Your task to perform on an android device: turn off data saver in the chrome app Image 0: 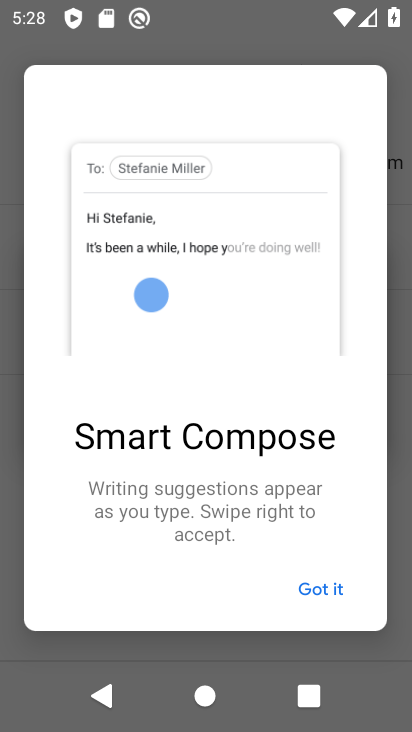
Step 0: press home button
Your task to perform on an android device: turn off data saver in the chrome app Image 1: 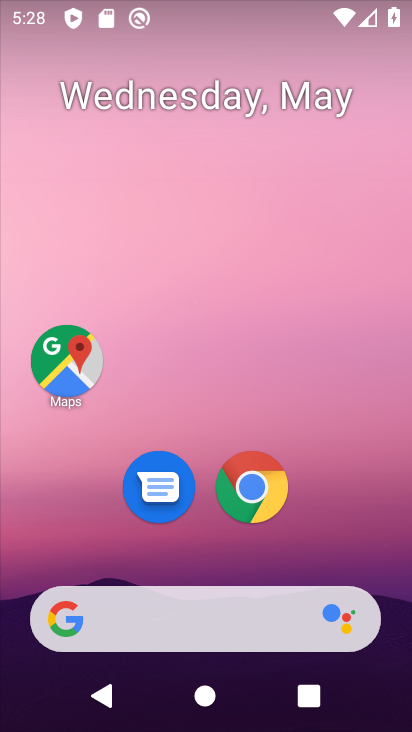
Step 1: drag from (164, 567) to (179, 119)
Your task to perform on an android device: turn off data saver in the chrome app Image 2: 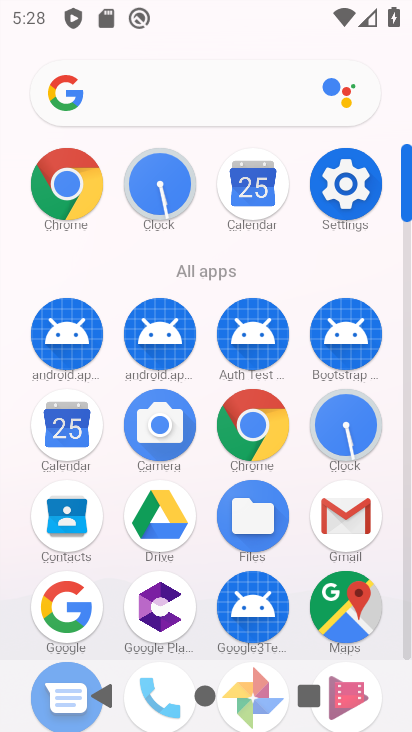
Step 2: click (250, 449)
Your task to perform on an android device: turn off data saver in the chrome app Image 3: 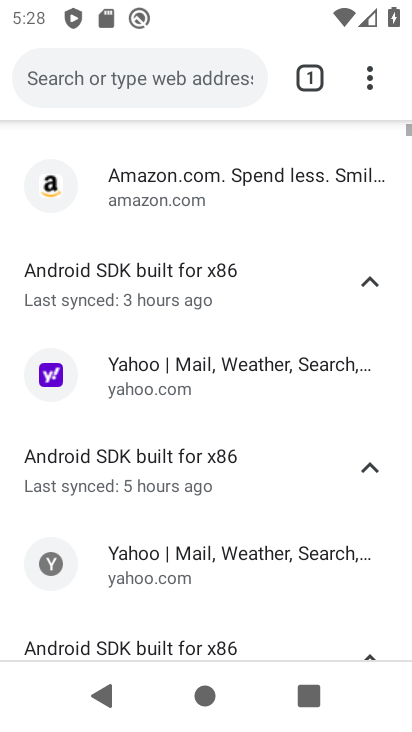
Step 3: click (365, 83)
Your task to perform on an android device: turn off data saver in the chrome app Image 4: 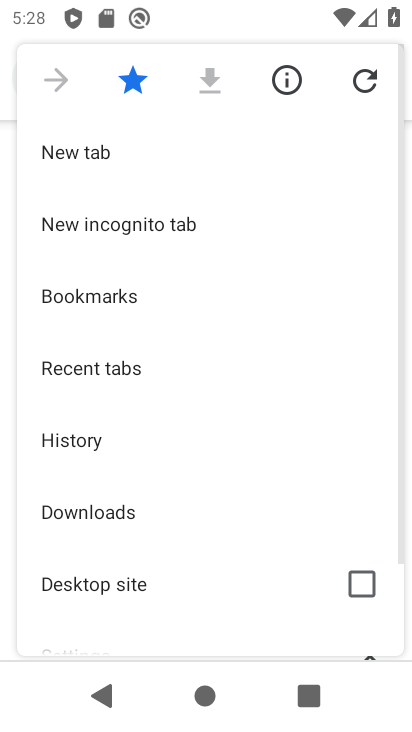
Step 4: drag from (157, 606) to (91, 200)
Your task to perform on an android device: turn off data saver in the chrome app Image 5: 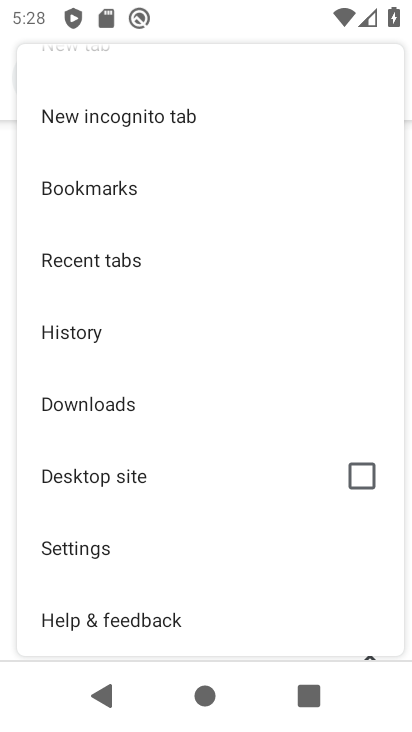
Step 5: click (99, 560)
Your task to perform on an android device: turn off data saver in the chrome app Image 6: 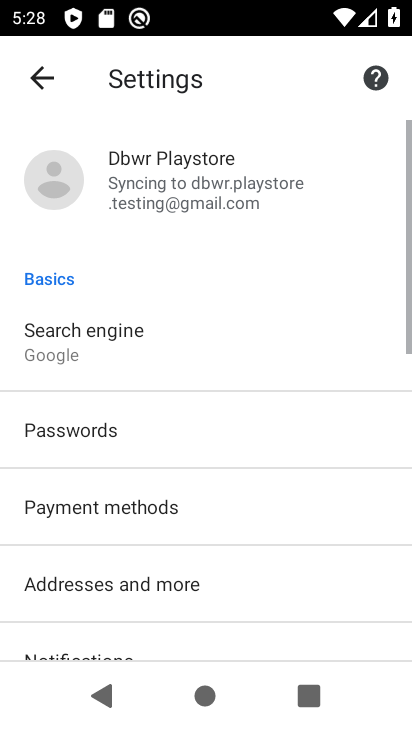
Step 6: drag from (129, 595) to (117, 196)
Your task to perform on an android device: turn off data saver in the chrome app Image 7: 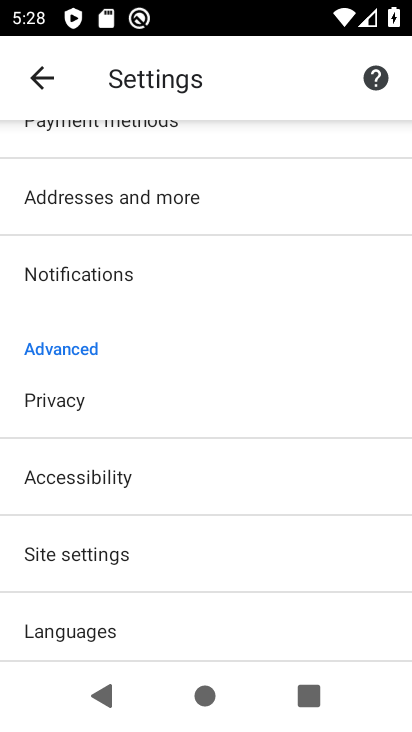
Step 7: drag from (146, 615) to (148, 248)
Your task to perform on an android device: turn off data saver in the chrome app Image 8: 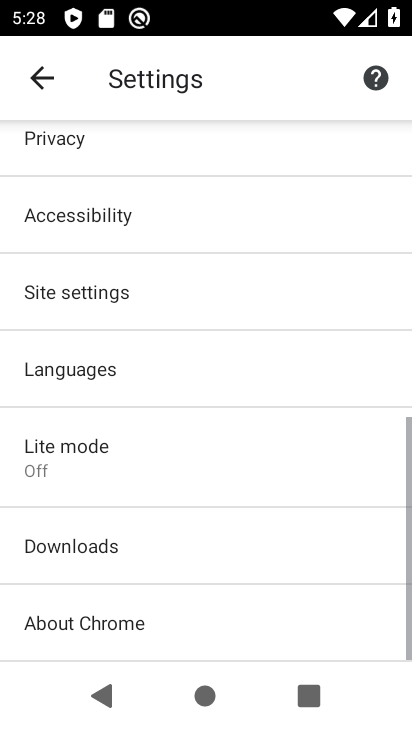
Step 8: click (93, 475)
Your task to perform on an android device: turn off data saver in the chrome app Image 9: 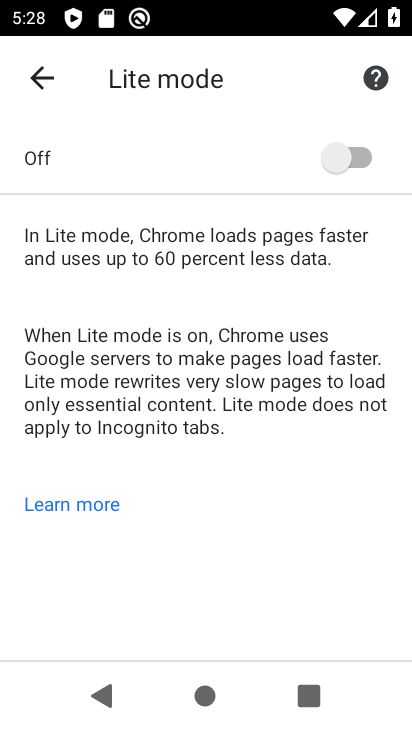
Step 9: task complete